Your task to perform on an android device: Open location settings Image 0: 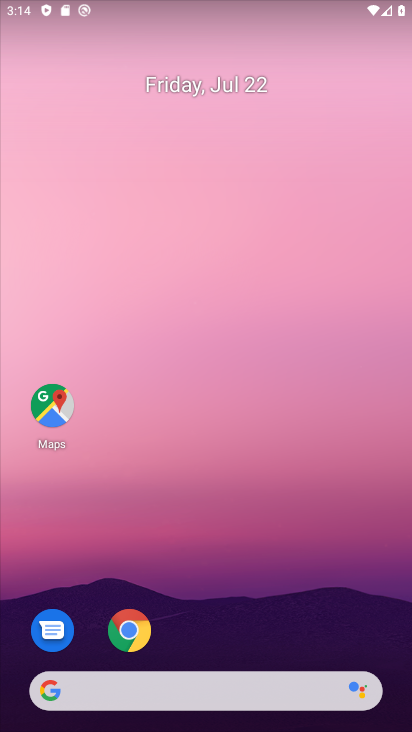
Step 0: drag from (235, 629) to (233, 61)
Your task to perform on an android device: Open location settings Image 1: 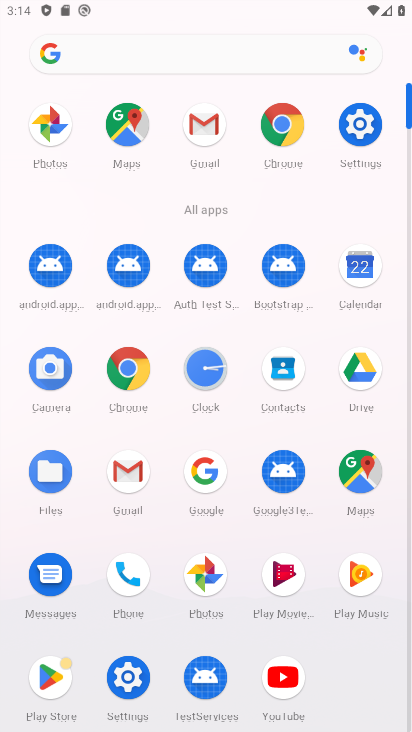
Step 1: click (367, 117)
Your task to perform on an android device: Open location settings Image 2: 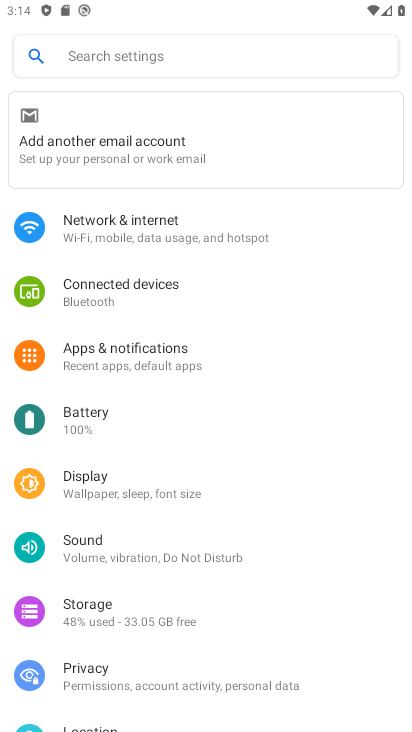
Step 2: drag from (291, 687) to (185, 176)
Your task to perform on an android device: Open location settings Image 3: 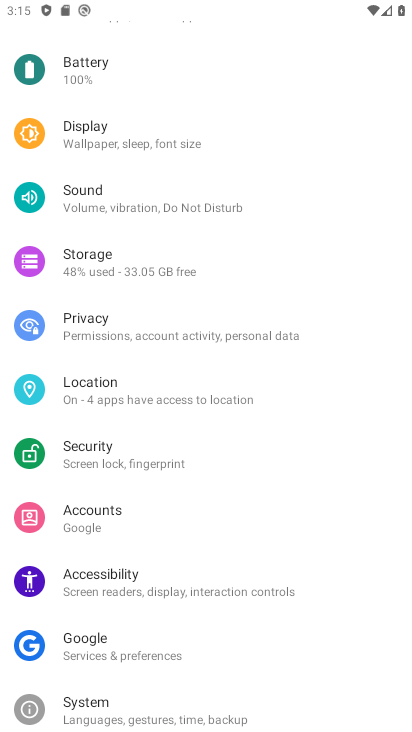
Step 3: drag from (207, 619) to (186, 398)
Your task to perform on an android device: Open location settings Image 4: 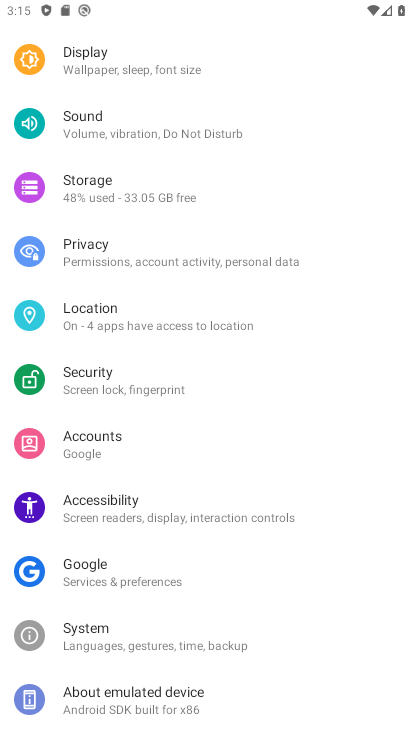
Step 4: click (158, 310)
Your task to perform on an android device: Open location settings Image 5: 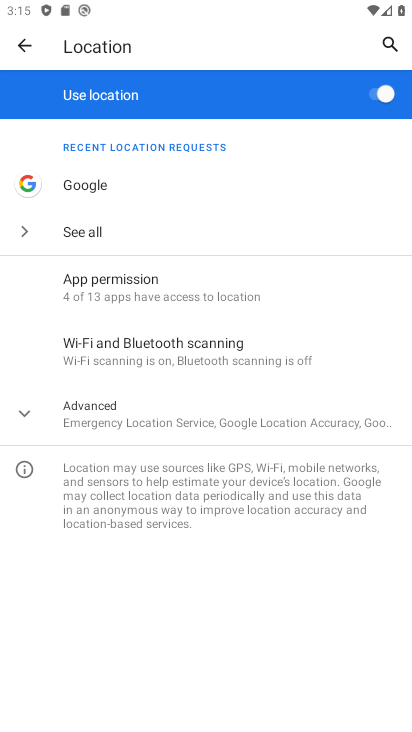
Step 5: task complete